Your task to perform on an android device: visit the assistant section in the google photos Image 0: 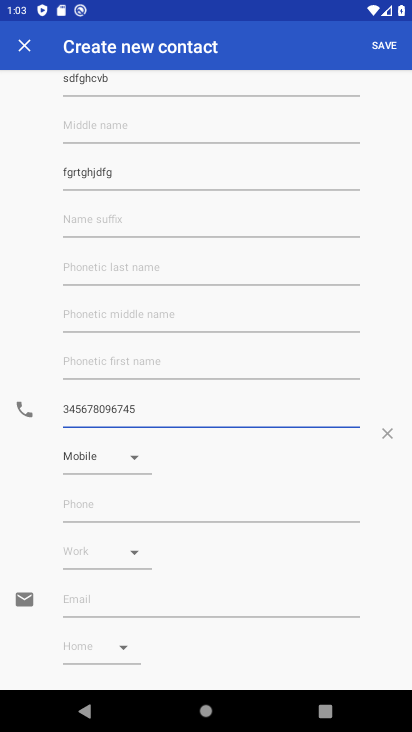
Step 0: press home button
Your task to perform on an android device: visit the assistant section in the google photos Image 1: 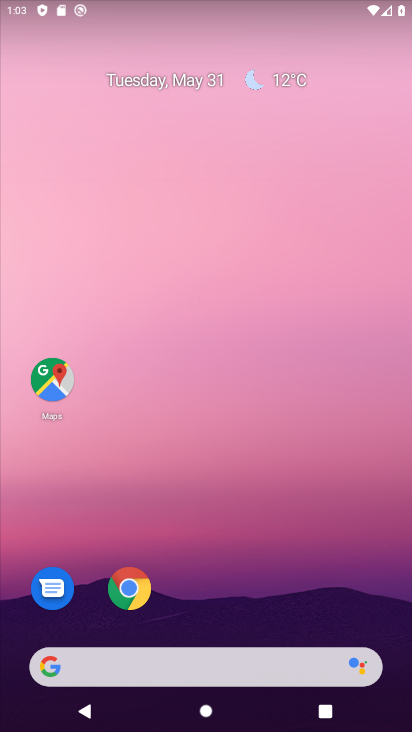
Step 1: drag from (396, 703) to (358, 202)
Your task to perform on an android device: visit the assistant section in the google photos Image 2: 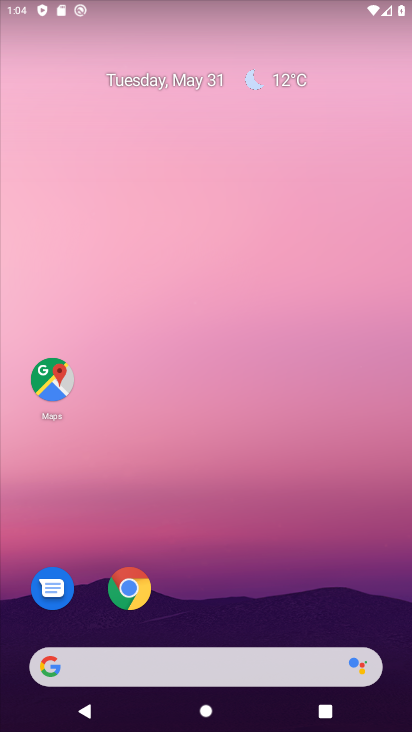
Step 2: drag from (399, 695) to (326, 73)
Your task to perform on an android device: visit the assistant section in the google photos Image 3: 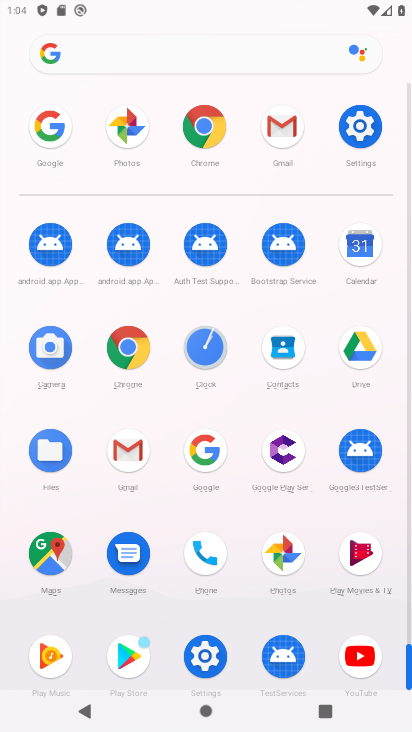
Step 3: click (125, 125)
Your task to perform on an android device: visit the assistant section in the google photos Image 4: 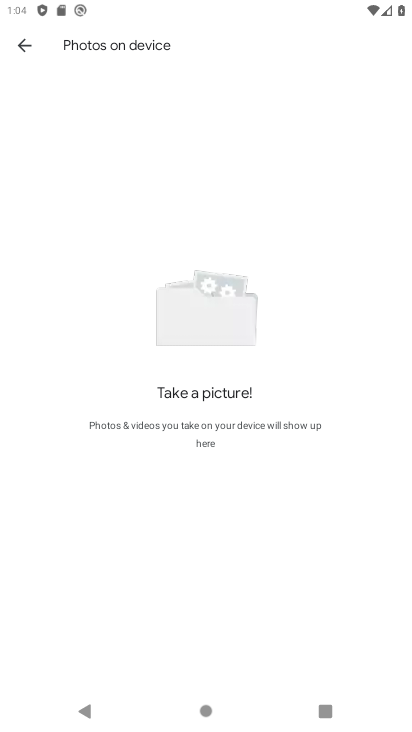
Step 4: click (18, 48)
Your task to perform on an android device: visit the assistant section in the google photos Image 5: 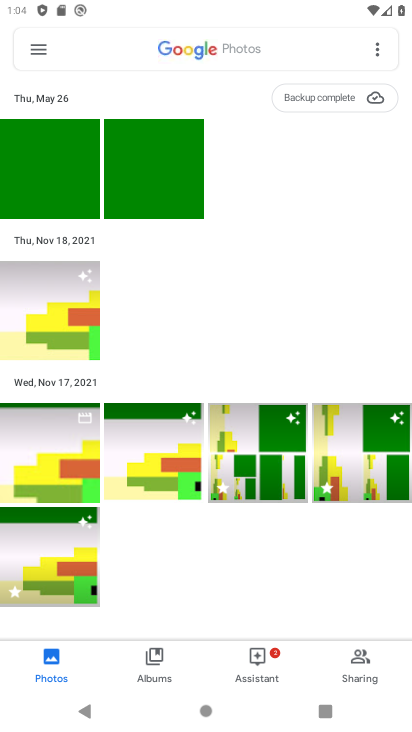
Step 5: click (238, 670)
Your task to perform on an android device: visit the assistant section in the google photos Image 6: 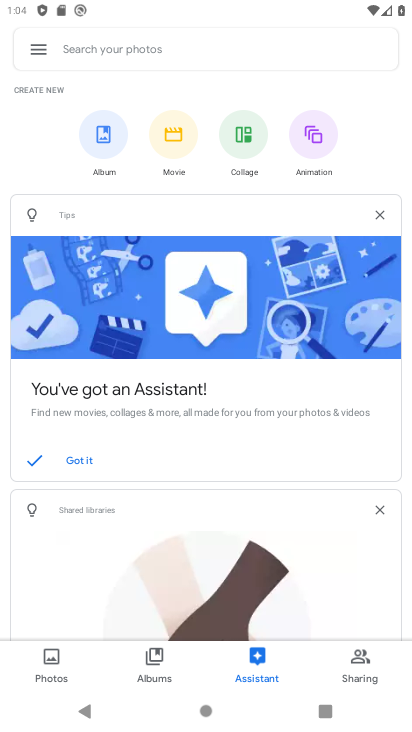
Step 6: task complete